Your task to perform on an android device: Do I have any events this weekend? Image 0: 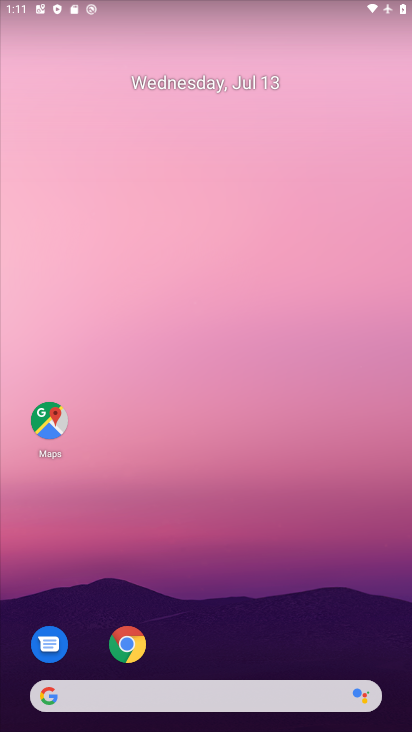
Step 0: drag from (332, 659) to (291, 158)
Your task to perform on an android device: Do I have any events this weekend? Image 1: 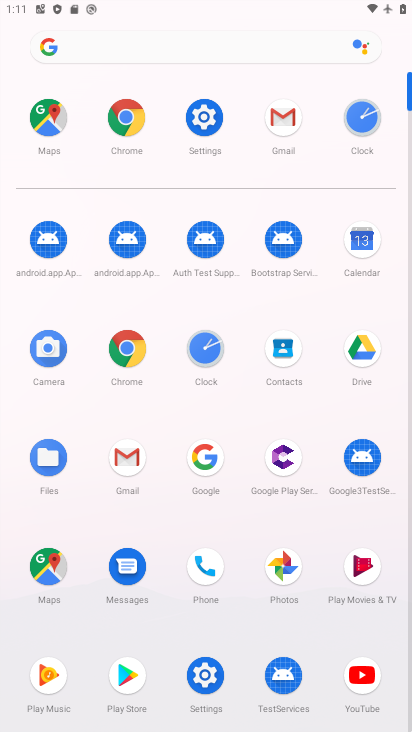
Step 1: click (366, 246)
Your task to perform on an android device: Do I have any events this weekend? Image 2: 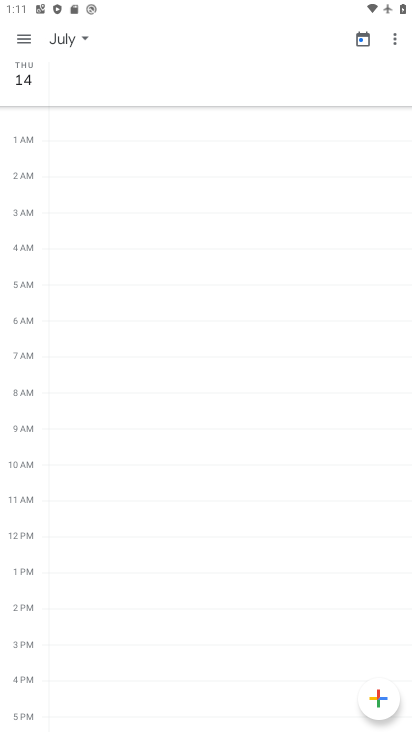
Step 2: click (21, 35)
Your task to perform on an android device: Do I have any events this weekend? Image 3: 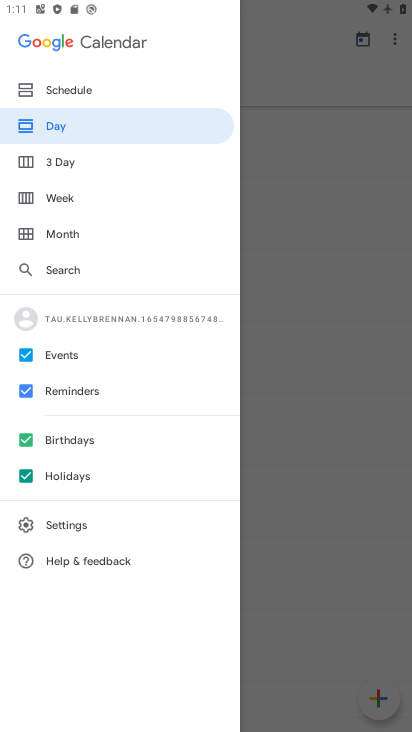
Step 3: click (58, 161)
Your task to perform on an android device: Do I have any events this weekend? Image 4: 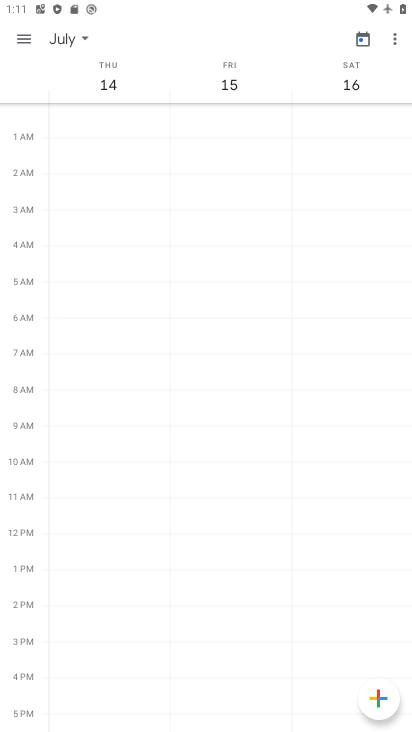
Step 4: task complete